Your task to perform on an android device: What's the weather? Image 0: 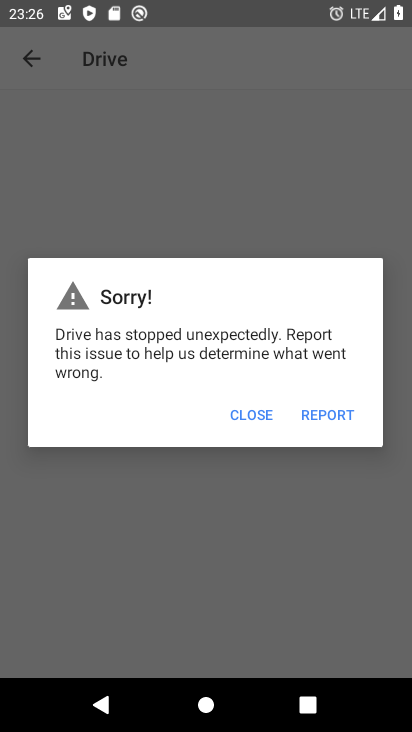
Step 0: press home button
Your task to perform on an android device: What's the weather? Image 1: 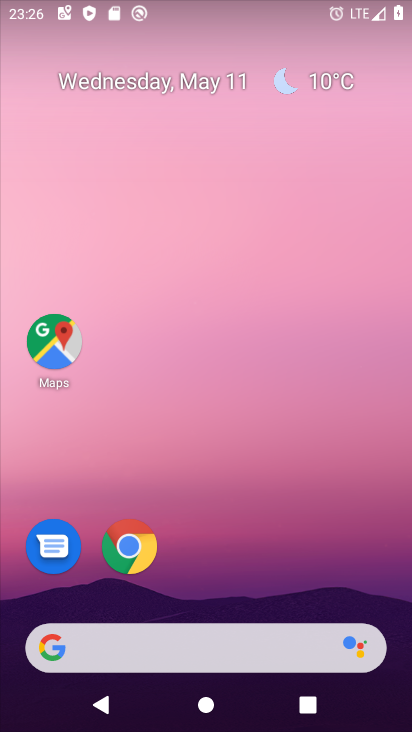
Step 1: click (313, 78)
Your task to perform on an android device: What's the weather? Image 2: 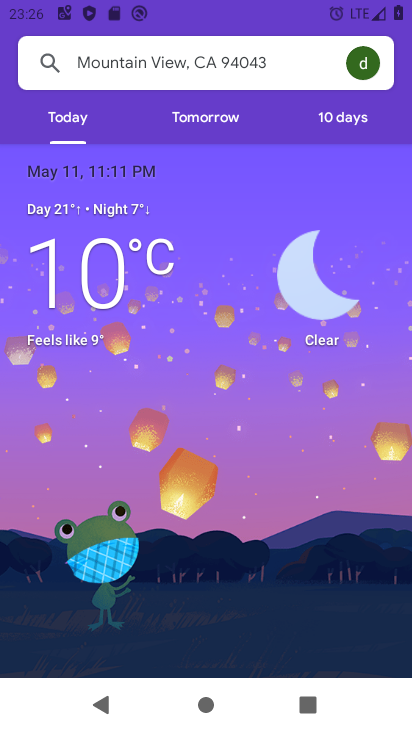
Step 2: task complete